Your task to perform on an android device: Open display settings Image 0: 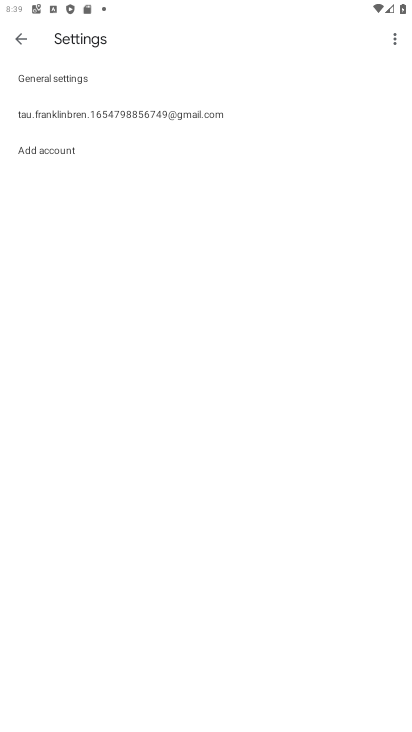
Step 0: press home button
Your task to perform on an android device: Open display settings Image 1: 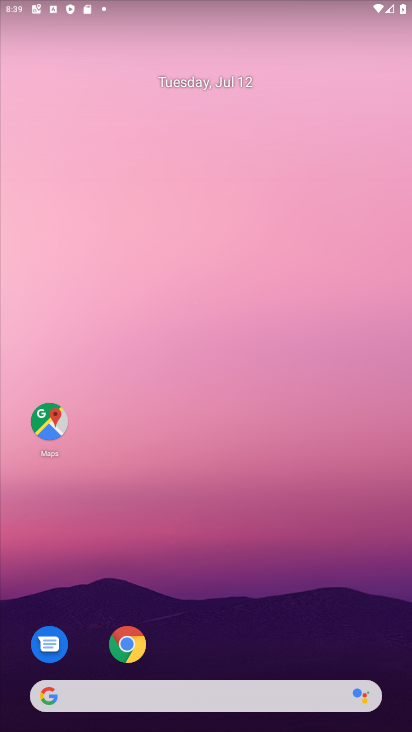
Step 1: drag from (359, 620) to (308, 263)
Your task to perform on an android device: Open display settings Image 2: 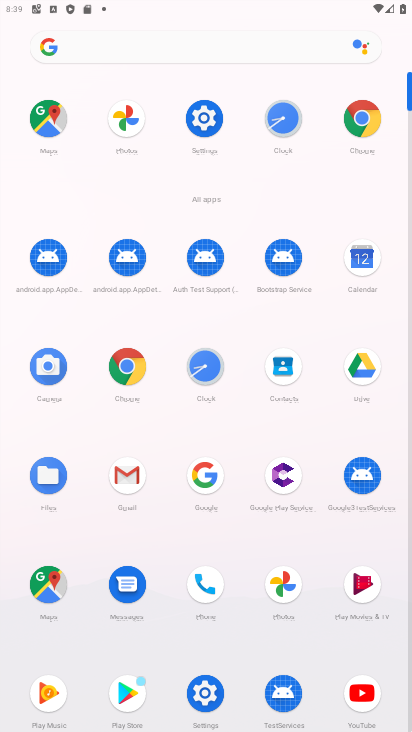
Step 2: click (204, 694)
Your task to perform on an android device: Open display settings Image 3: 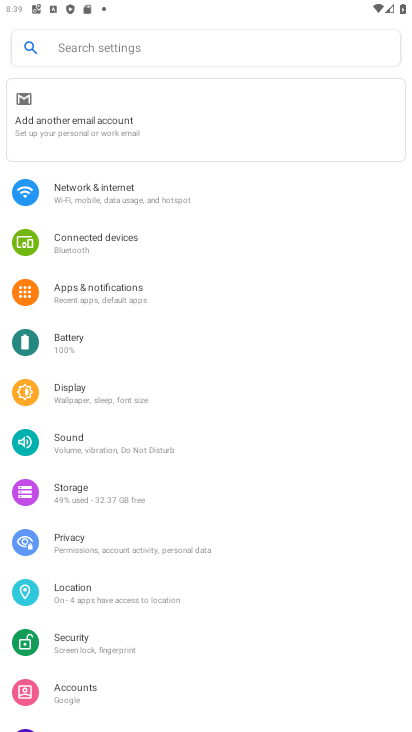
Step 3: click (66, 383)
Your task to perform on an android device: Open display settings Image 4: 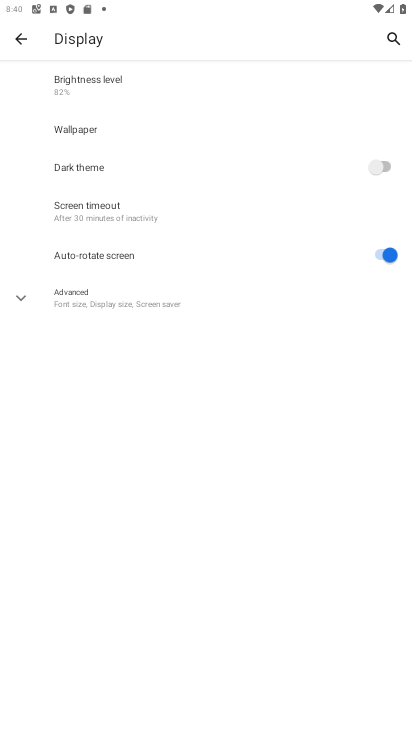
Step 4: click (19, 297)
Your task to perform on an android device: Open display settings Image 5: 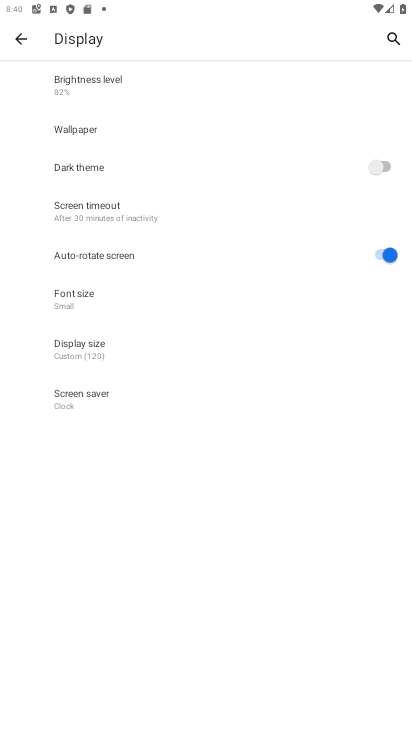
Step 5: task complete